Your task to perform on an android device: toggle pop-ups in chrome Image 0: 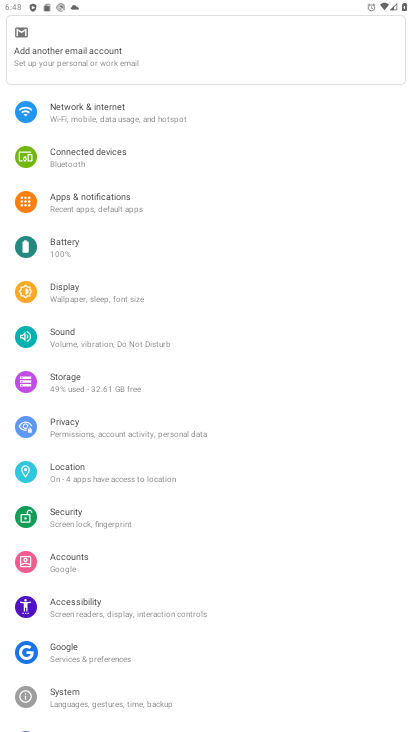
Step 0: press home button
Your task to perform on an android device: toggle pop-ups in chrome Image 1: 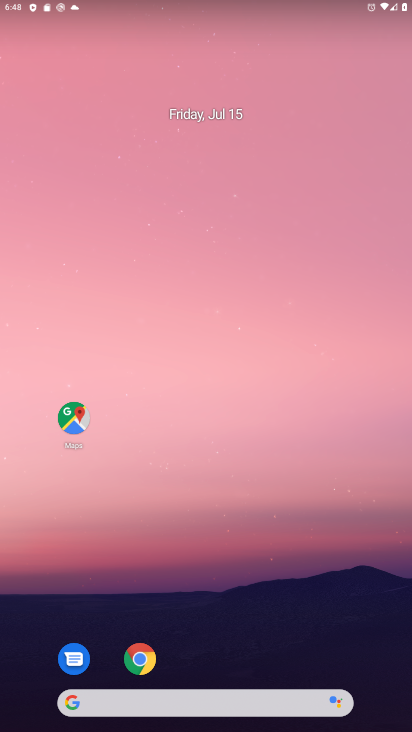
Step 1: click (142, 658)
Your task to perform on an android device: toggle pop-ups in chrome Image 2: 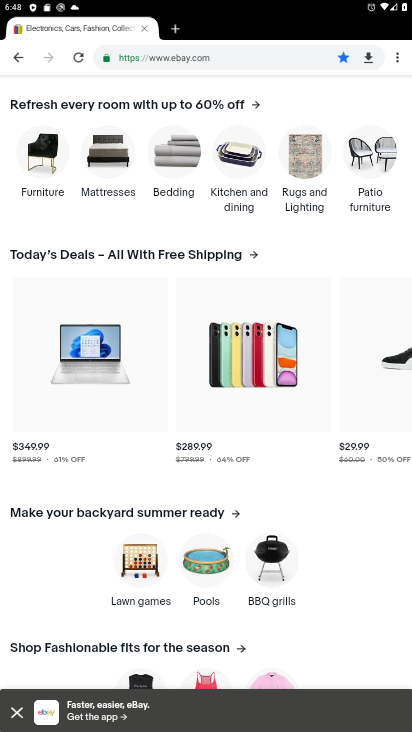
Step 2: click (398, 60)
Your task to perform on an android device: toggle pop-ups in chrome Image 3: 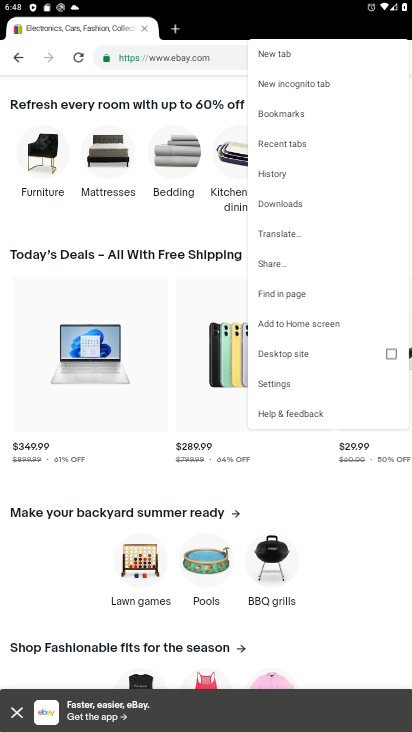
Step 3: click (275, 383)
Your task to perform on an android device: toggle pop-ups in chrome Image 4: 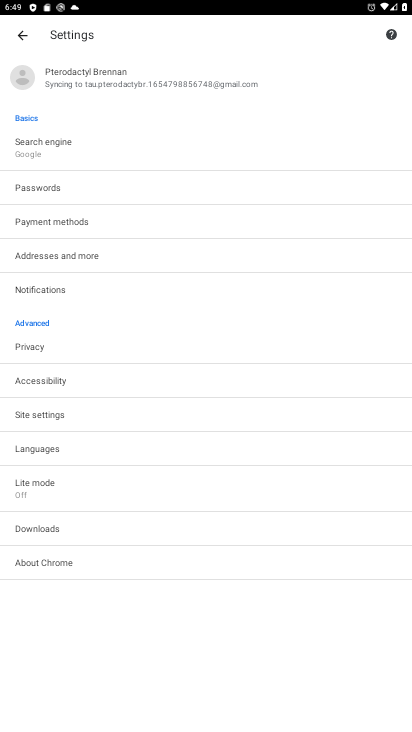
Step 4: click (27, 408)
Your task to perform on an android device: toggle pop-ups in chrome Image 5: 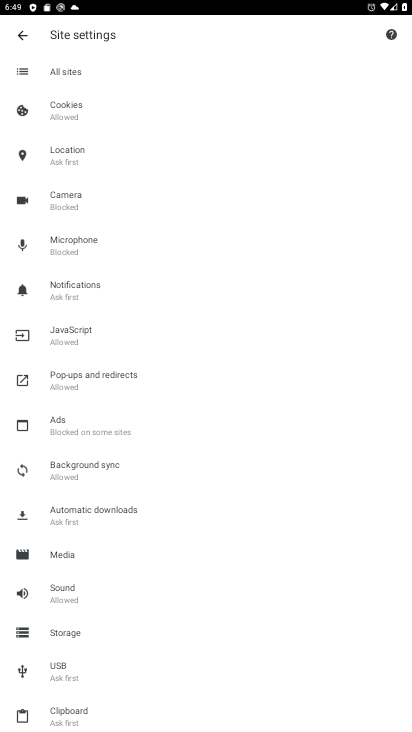
Step 5: click (69, 369)
Your task to perform on an android device: toggle pop-ups in chrome Image 6: 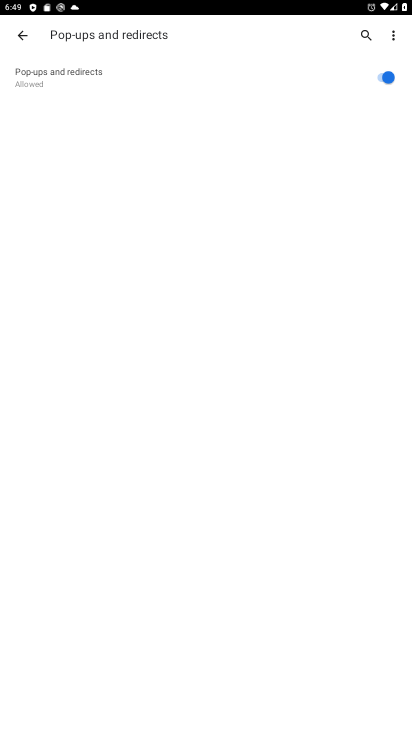
Step 6: click (377, 72)
Your task to perform on an android device: toggle pop-ups in chrome Image 7: 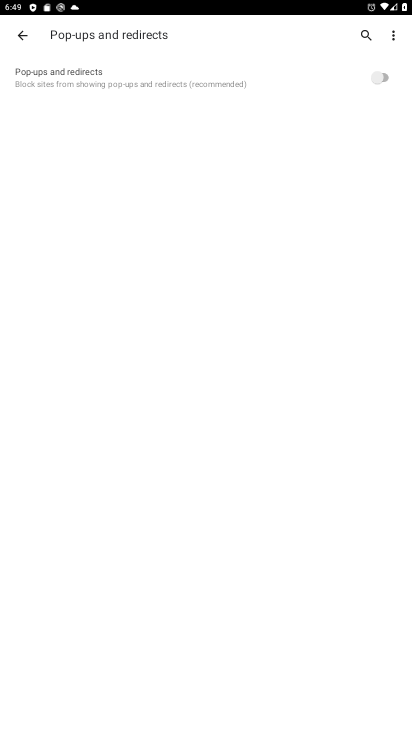
Step 7: task complete